Your task to perform on an android device: check data usage Image 0: 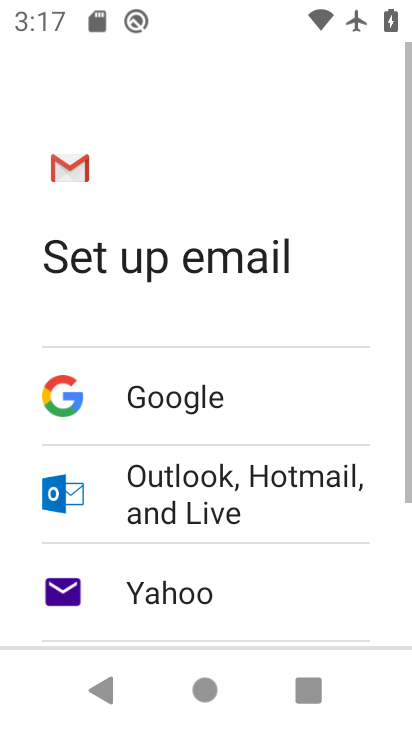
Step 0: press home button
Your task to perform on an android device: check data usage Image 1: 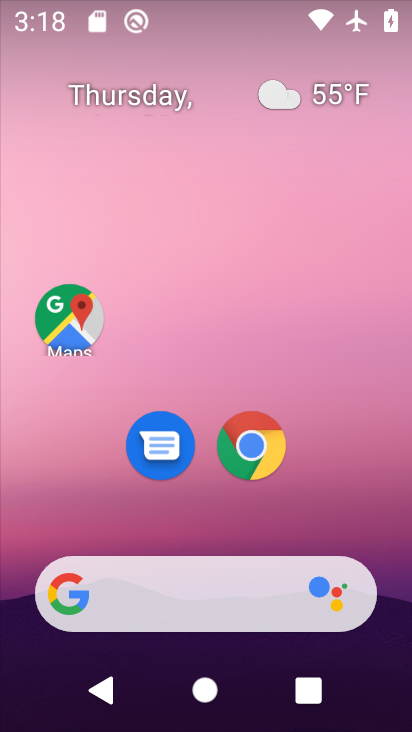
Step 1: drag from (380, 467) to (331, 133)
Your task to perform on an android device: check data usage Image 2: 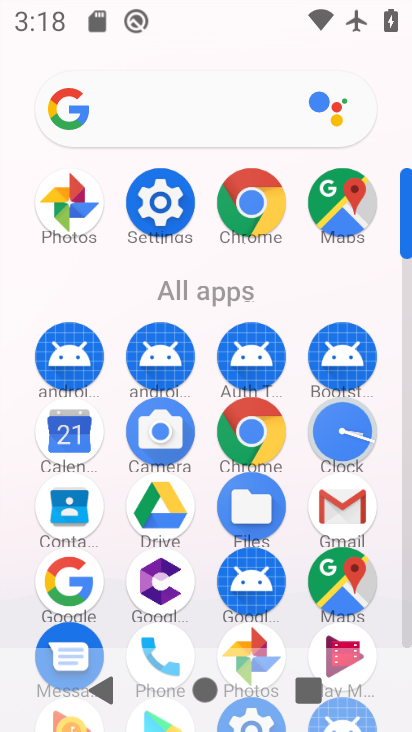
Step 2: click (157, 210)
Your task to perform on an android device: check data usage Image 3: 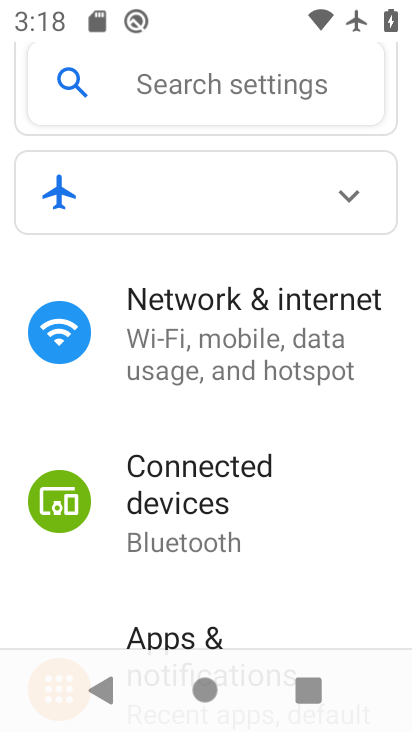
Step 3: drag from (249, 601) to (287, 313)
Your task to perform on an android device: check data usage Image 4: 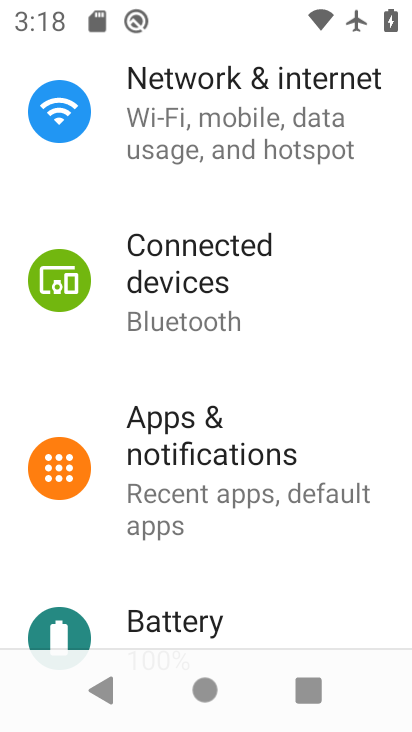
Step 4: drag from (296, 386) to (317, 221)
Your task to perform on an android device: check data usage Image 5: 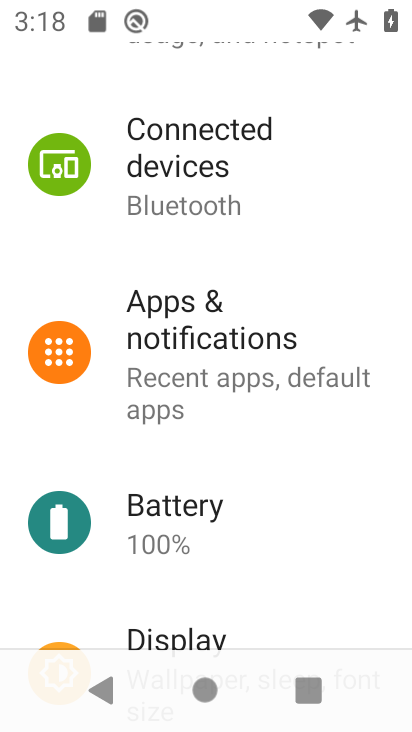
Step 5: drag from (277, 595) to (312, 271)
Your task to perform on an android device: check data usage Image 6: 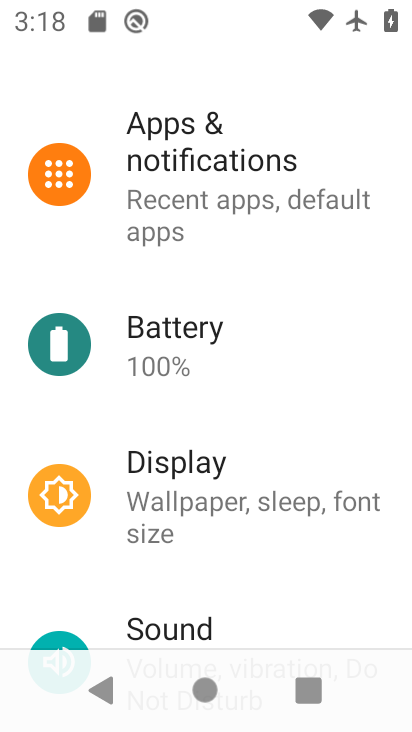
Step 6: drag from (247, 305) to (263, 605)
Your task to perform on an android device: check data usage Image 7: 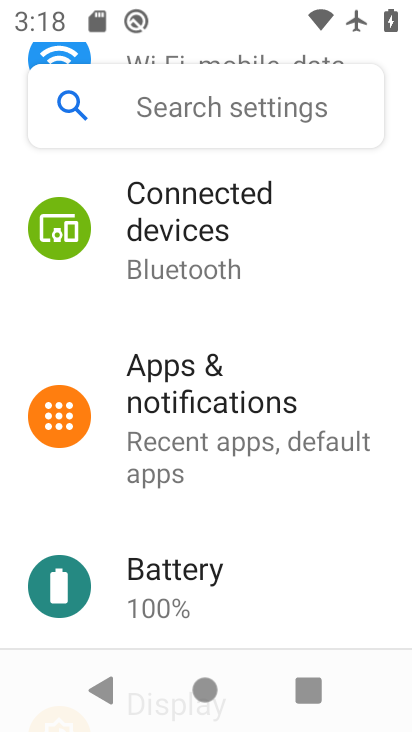
Step 7: drag from (227, 270) to (295, 513)
Your task to perform on an android device: check data usage Image 8: 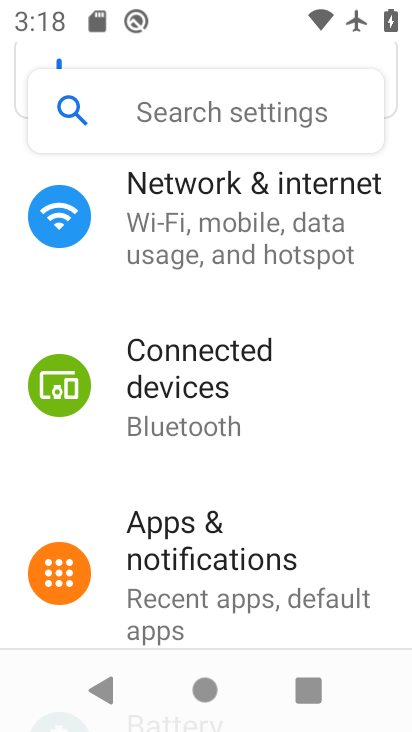
Step 8: click (251, 259)
Your task to perform on an android device: check data usage Image 9: 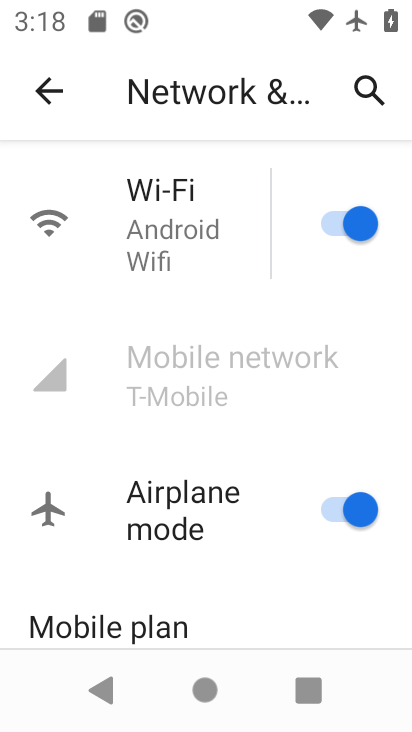
Step 9: click (368, 93)
Your task to perform on an android device: check data usage Image 10: 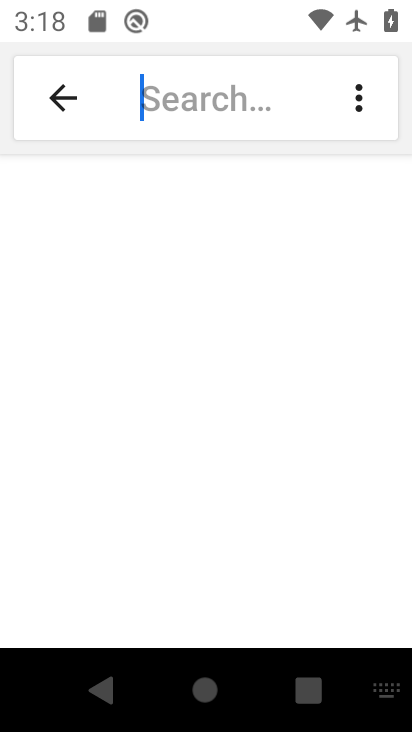
Step 10: click (253, 93)
Your task to perform on an android device: check data usage Image 11: 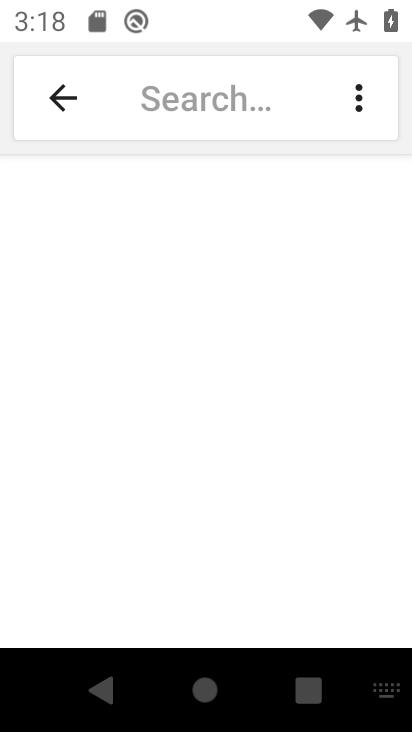
Step 11: type "data usage"
Your task to perform on an android device: check data usage Image 12: 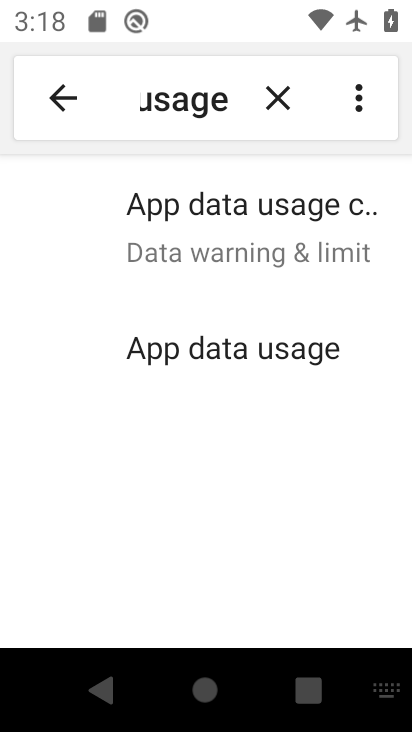
Step 12: click (257, 357)
Your task to perform on an android device: check data usage Image 13: 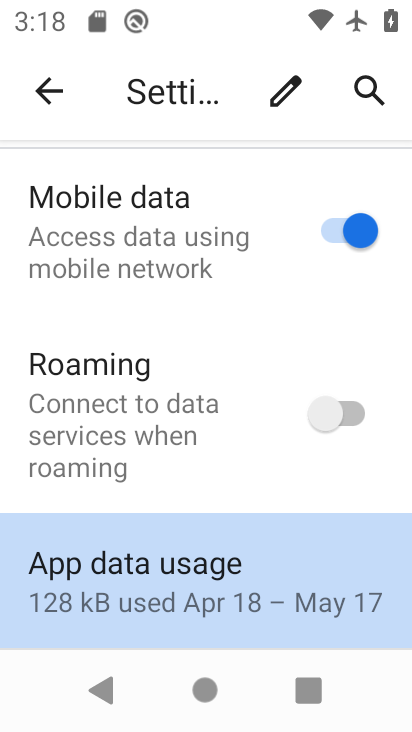
Step 13: click (225, 570)
Your task to perform on an android device: check data usage Image 14: 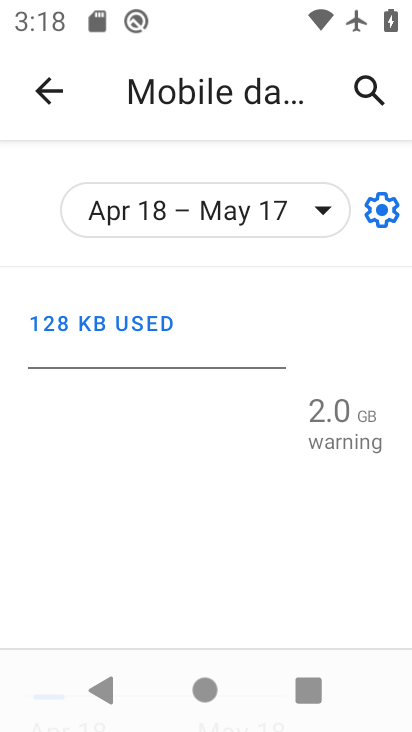
Step 14: task complete